Your task to perform on an android device: Toggle the flashlight Image 0: 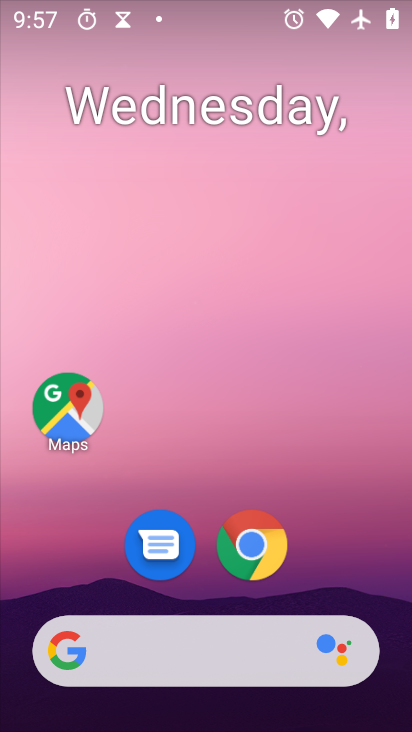
Step 0: press home button
Your task to perform on an android device: Toggle the flashlight Image 1: 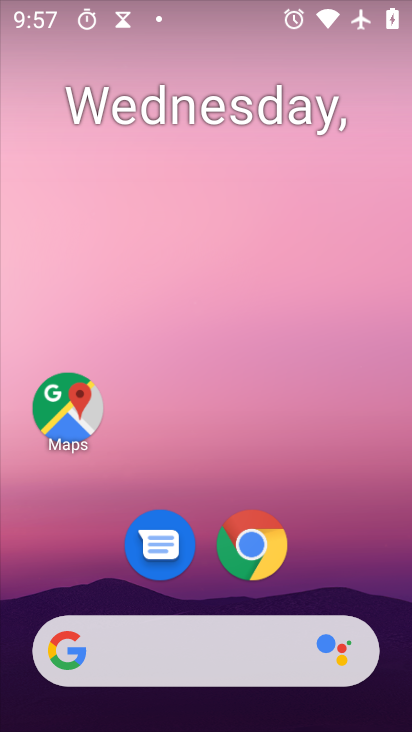
Step 1: task complete